Your task to perform on an android device: install app "Skype" Image 0: 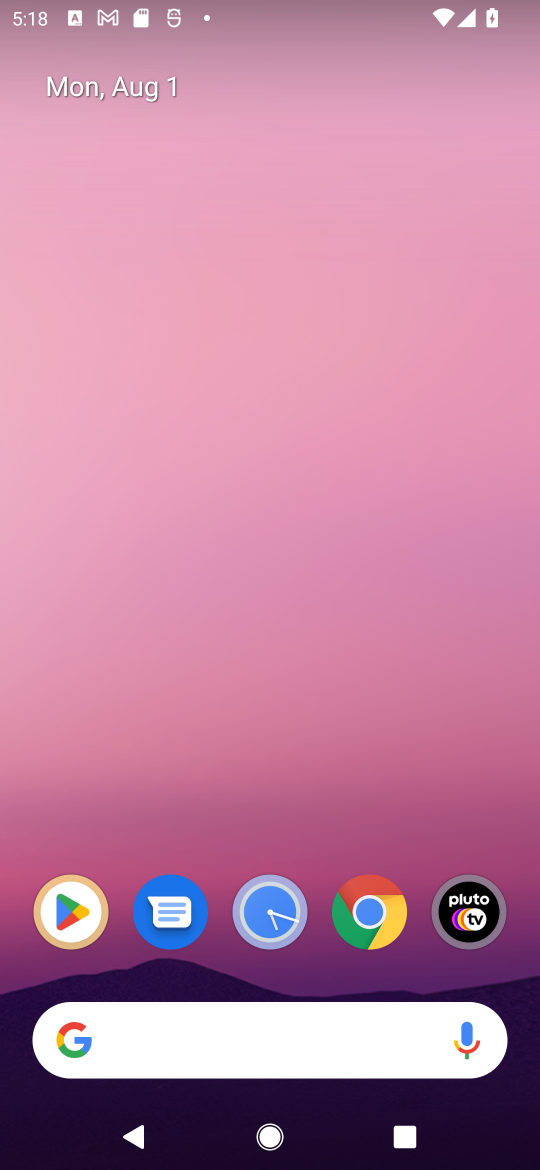
Step 0: click (72, 922)
Your task to perform on an android device: install app "Skype" Image 1: 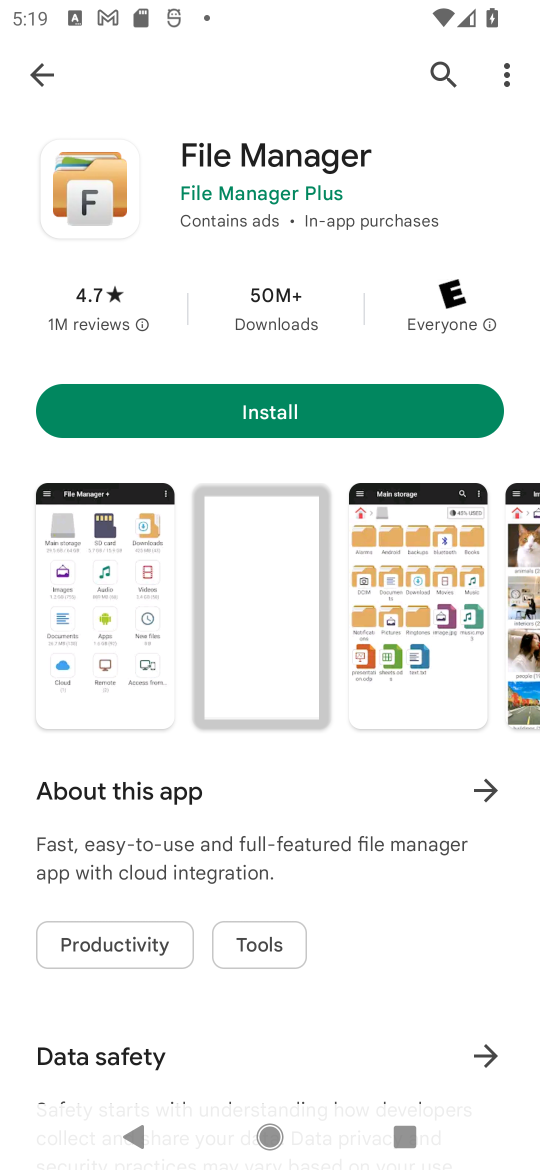
Step 1: click (439, 78)
Your task to perform on an android device: install app "Skype" Image 2: 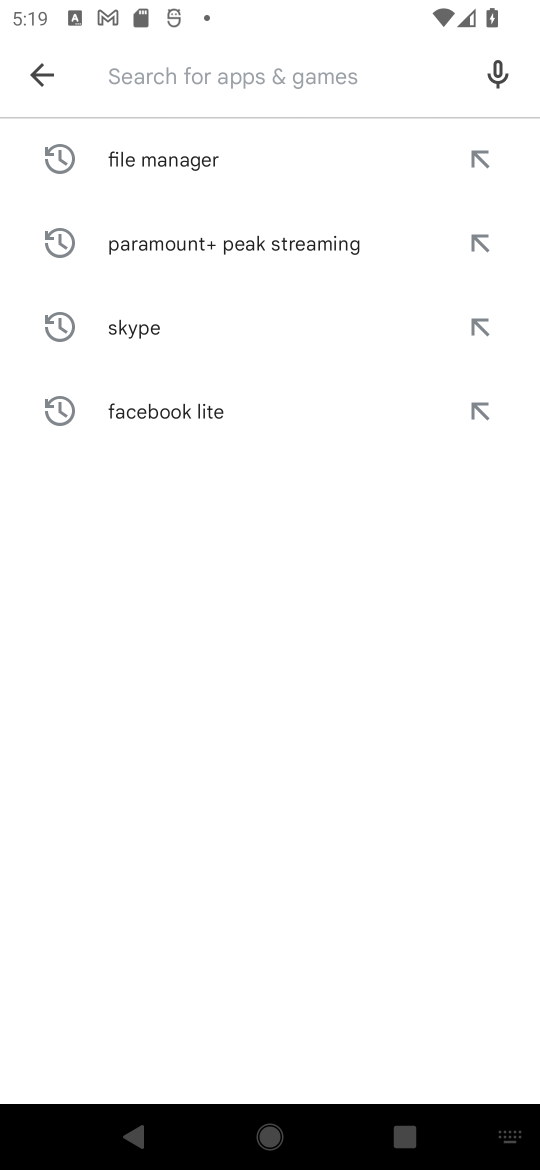
Step 2: type "Skype"
Your task to perform on an android device: install app "Skype" Image 3: 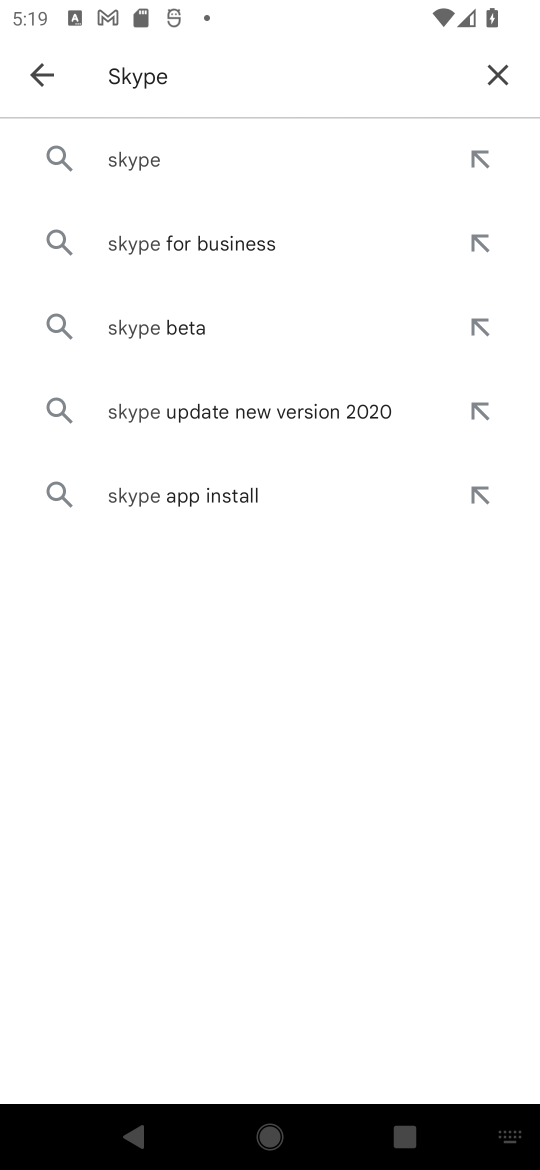
Step 3: click (107, 156)
Your task to perform on an android device: install app "Skype" Image 4: 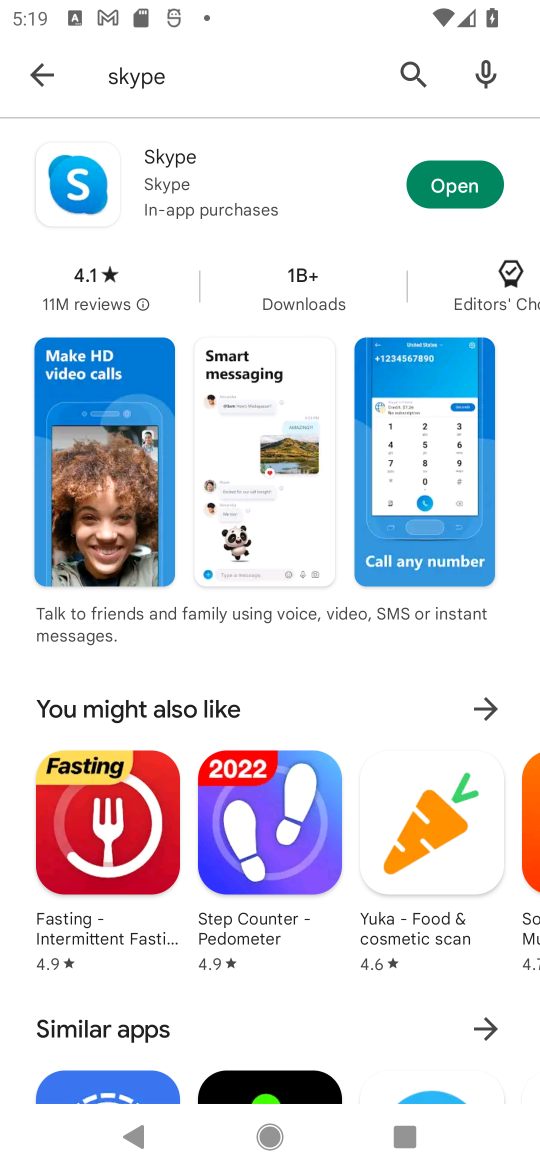
Step 4: task complete